Your task to perform on an android device: Go to location settings Image 0: 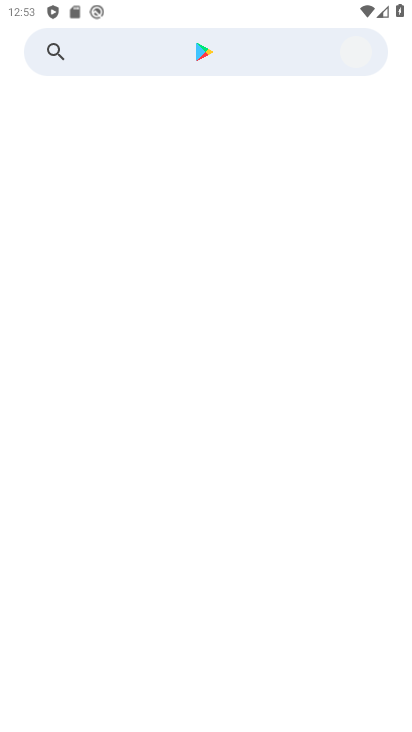
Step 0: press home button
Your task to perform on an android device: Go to location settings Image 1: 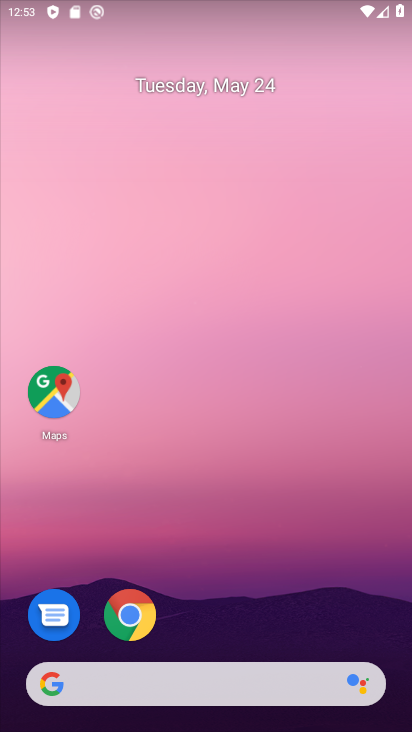
Step 1: drag from (233, 643) to (232, 14)
Your task to perform on an android device: Go to location settings Image 2: 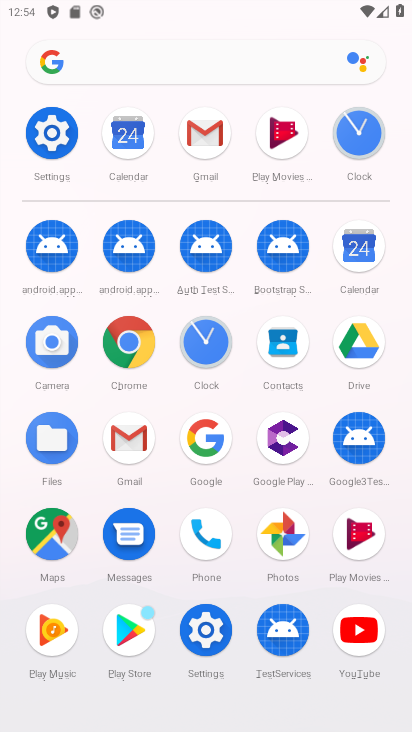
Step 2: click (204, 626)
Your task to perform on an android device: Go to location settings Image 3: 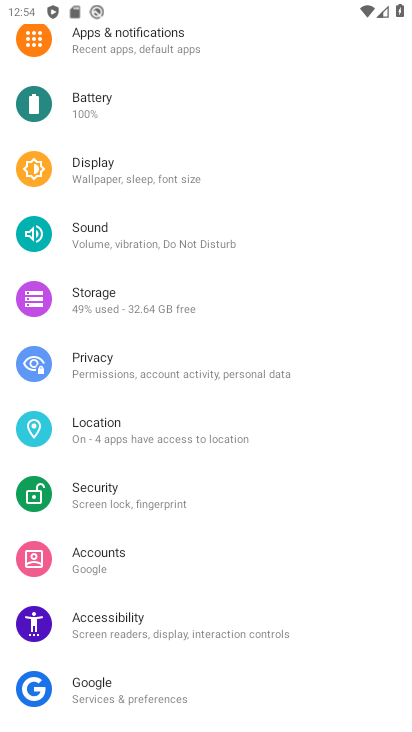
Step 3: click (131, 423)
Your task to perform on an android device: Go to location settings Image 4: 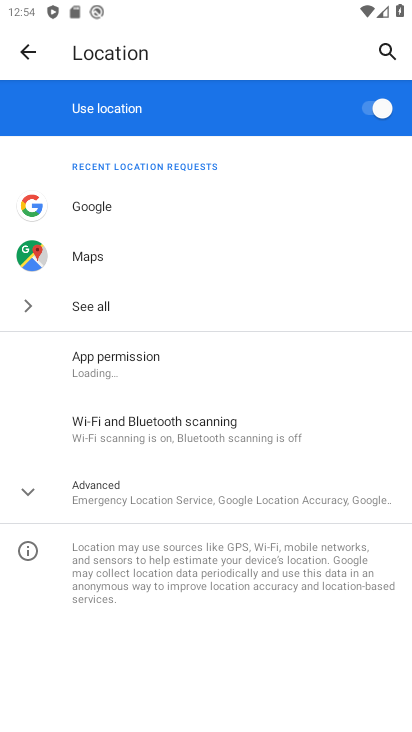
Step 4: click (28, 486)
Your task to perform on an android device: Go to location settings Image 5: 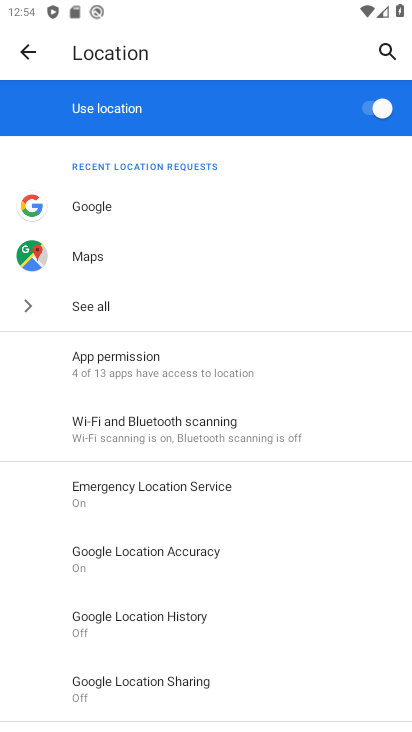
Step 5: click (150, 624)
Your task to perform on an android device: Go to location settings Image 6: 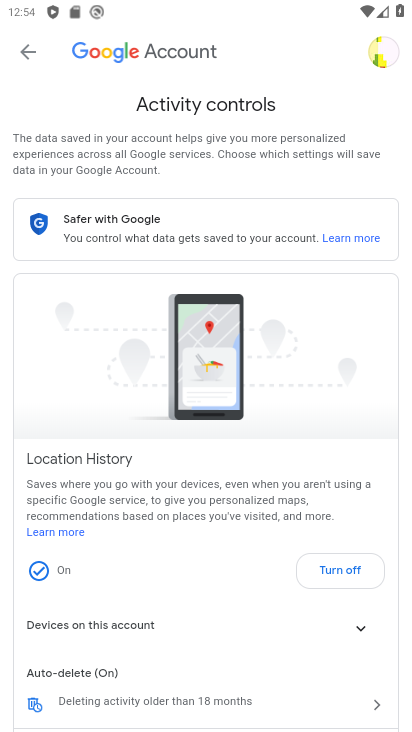
Step 6: task complete